Your task to perform on an android device: open app "Duolingo: language lessons" (install if not already installed) and enter user name: "omens@gmail.com" and password: "casks" Image 0: 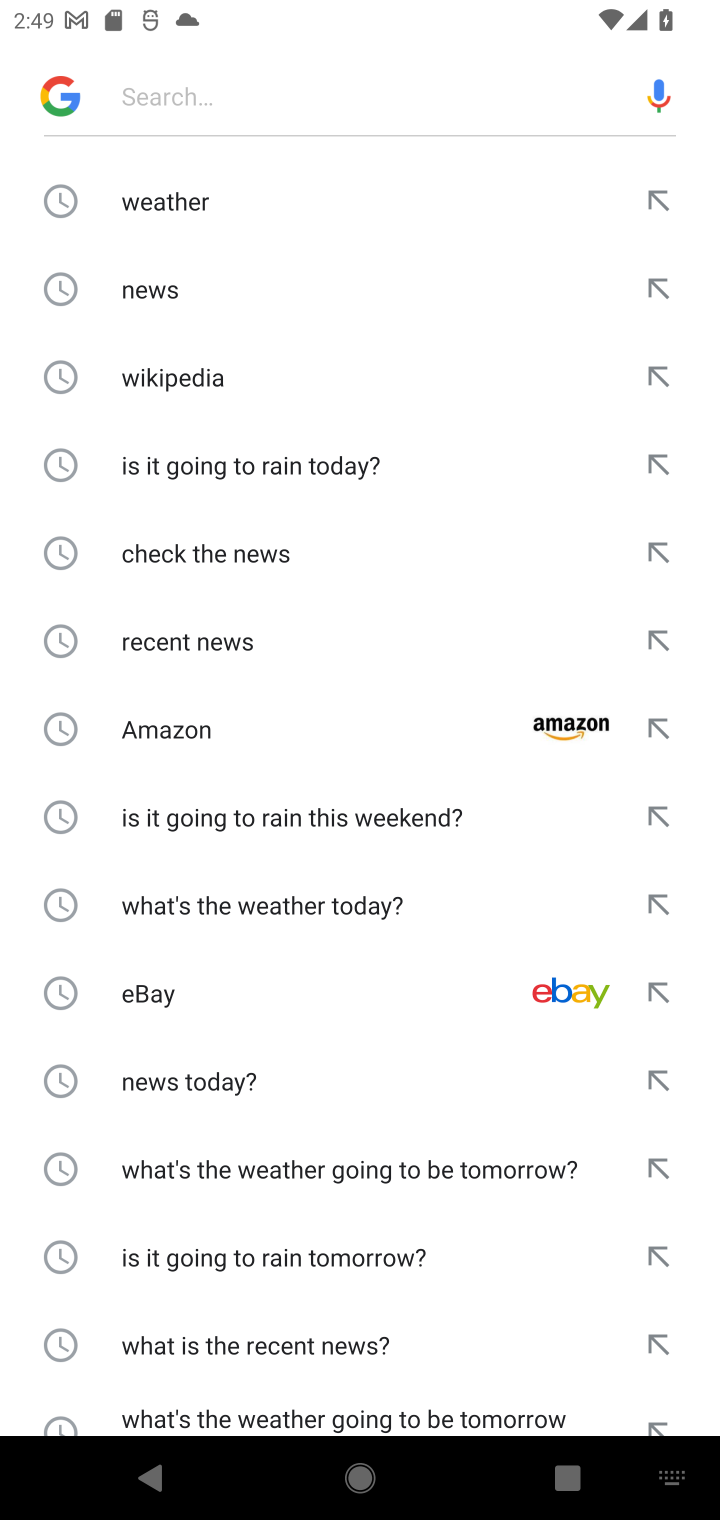
Step 0: click (296, 87)
Your task to perform on an android device: open app "Duolingo: language lessons" (install if not already installed) and enter user name: "omens@gmail.com" and password: "casks" Image 1: 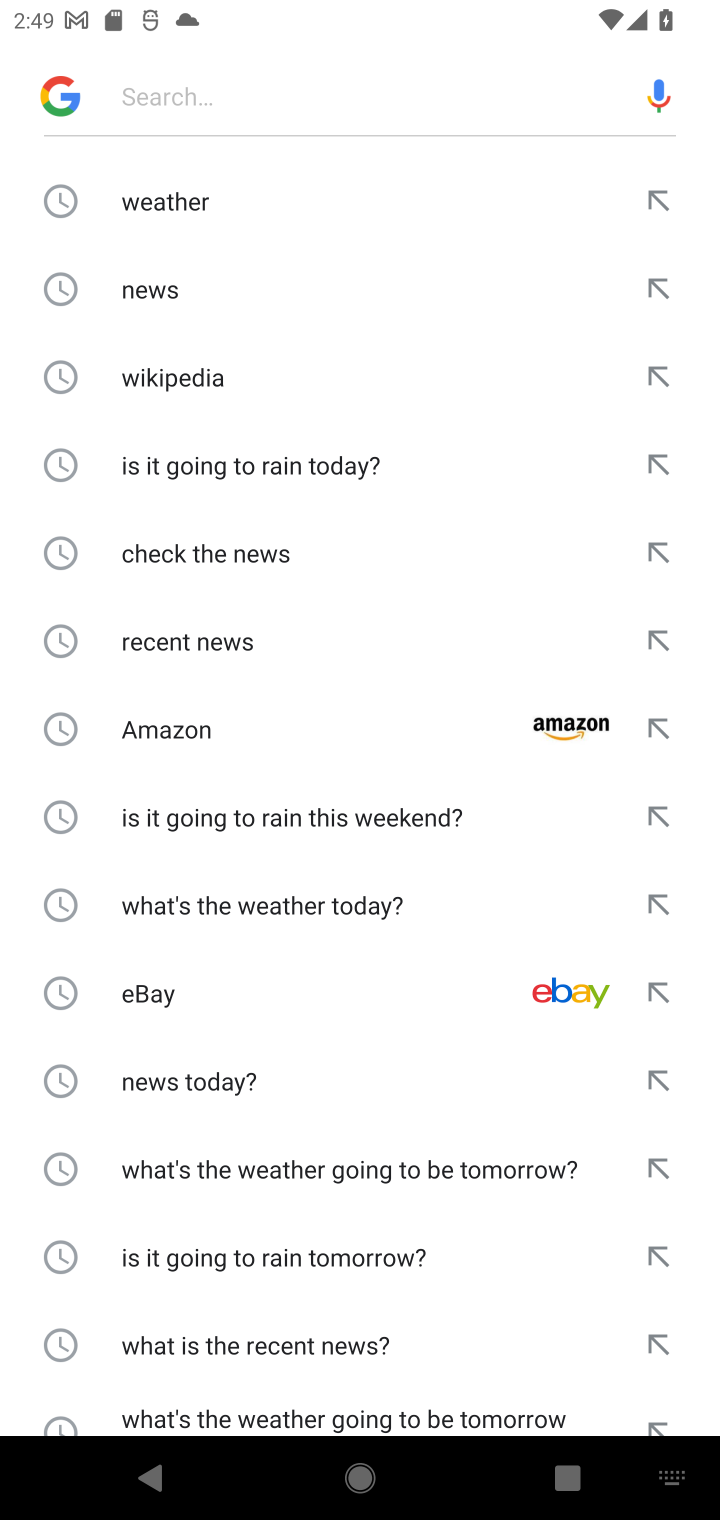
Step 1: type "Duolingo: language lessons "
Your task to perform on an android device: open app "Duolingo: language lessons" (install if not already installed) and enter user name: "omens@gmail.com" and password: "casks" Image 2: 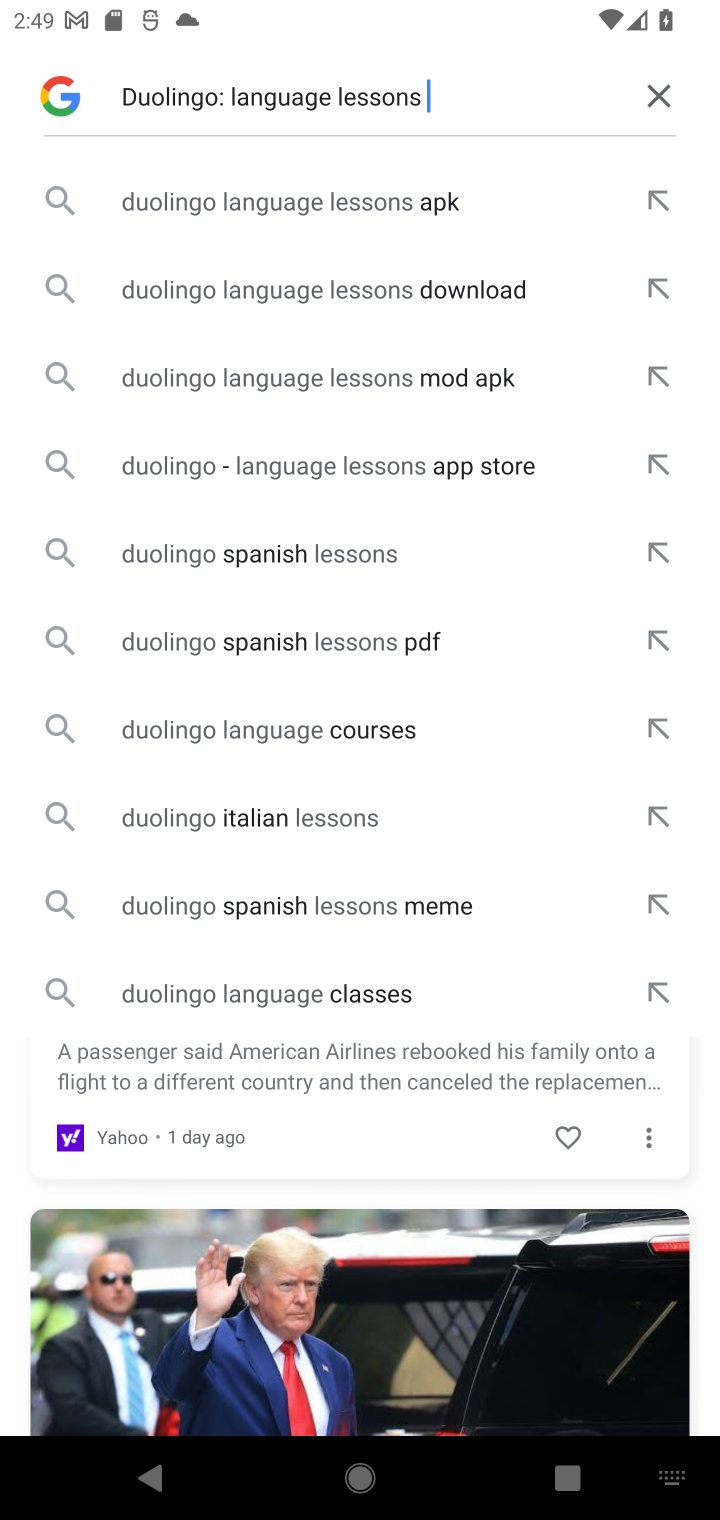
Step 2: click (208, 186)
Your task to perform on an android device: open app "Duolingo: language lessons" (install if not already installed) and enter user name: "omens@gmail.com" and password: "casks" Image 3: 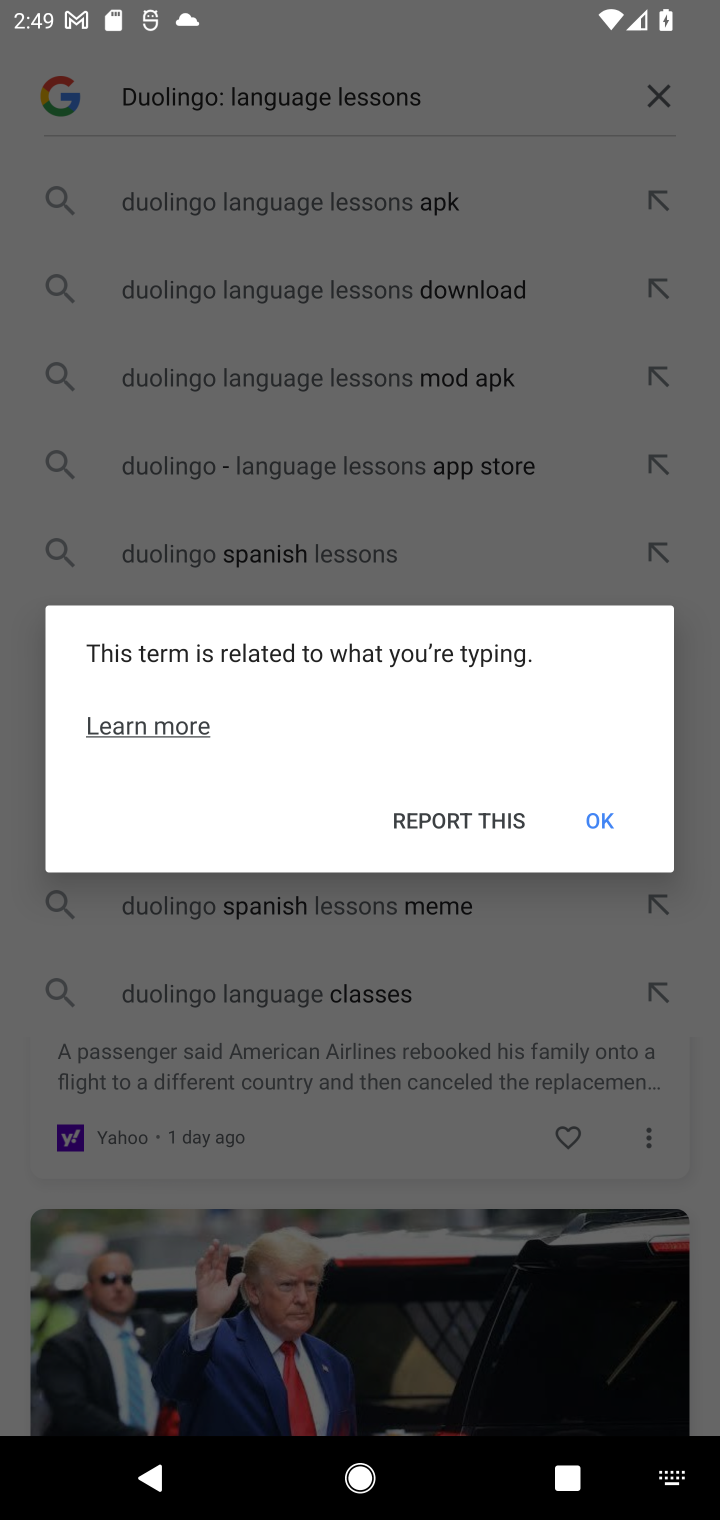
Step 3: click (581, 808)
Your task to perform on an android device: open app "Duolingo: language lessons" (install if not already installed) and enter user name: "omens@gmail.com" and password: "casks" Image 4: 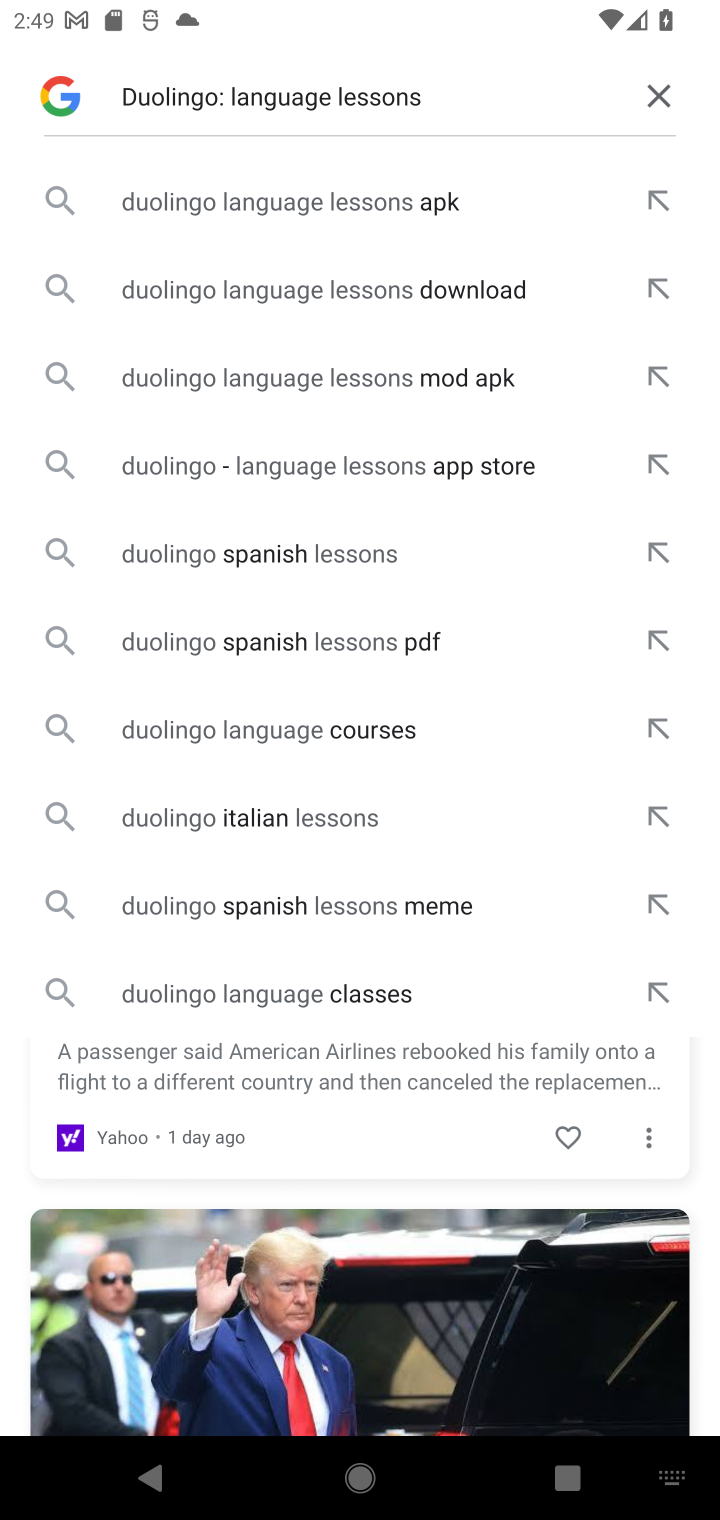
Step 4: click (366, 206)
Your task to perform on an android device: open app "Duolingo: language lessons" (install if not already installed) and enter user name: "omens@gmail.com" and password: "casks" Image 5: 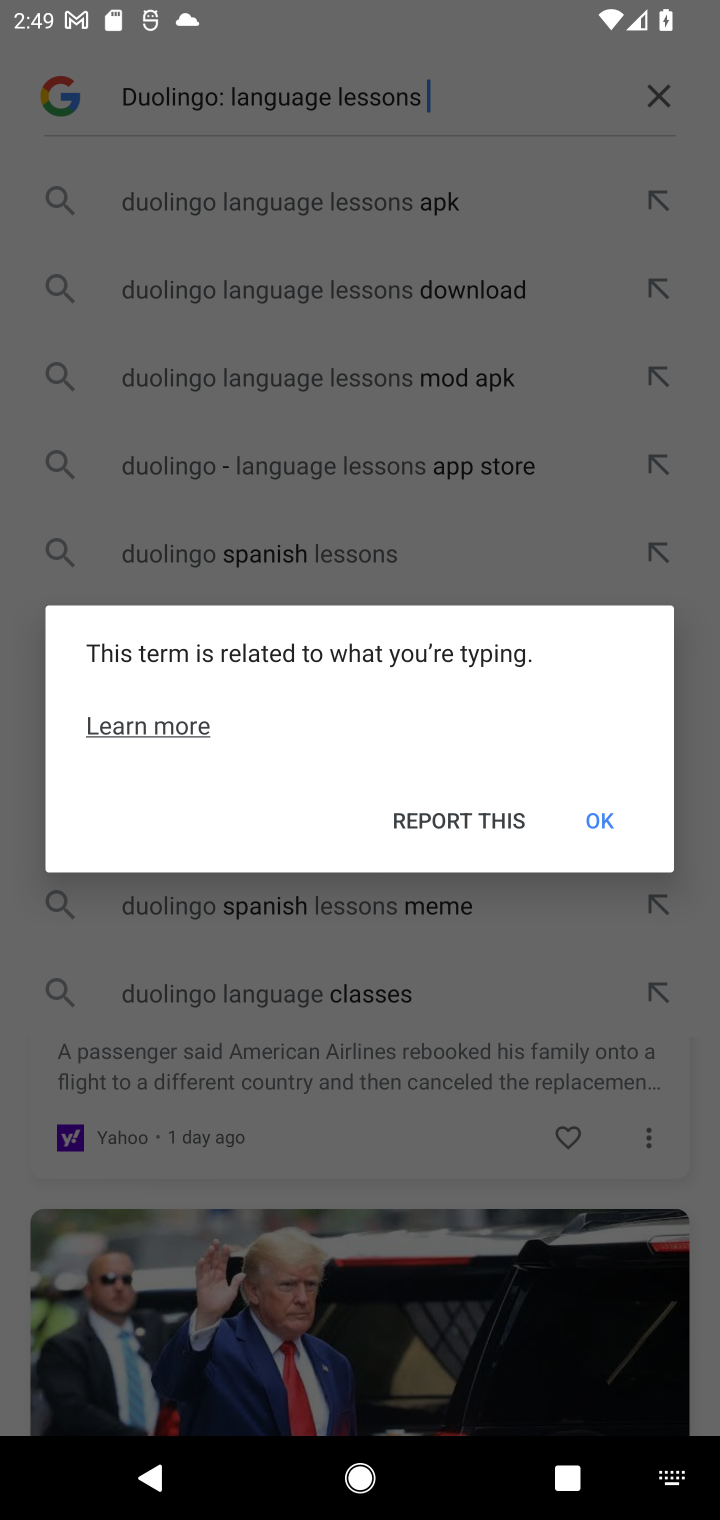
Step 5: click (613, 798)
Your task to perform on an android device: open app "Duolingo: language lessons" (install if not already installed) and enter user name: "omens@gmail.com" and password: "casks" Image 6: 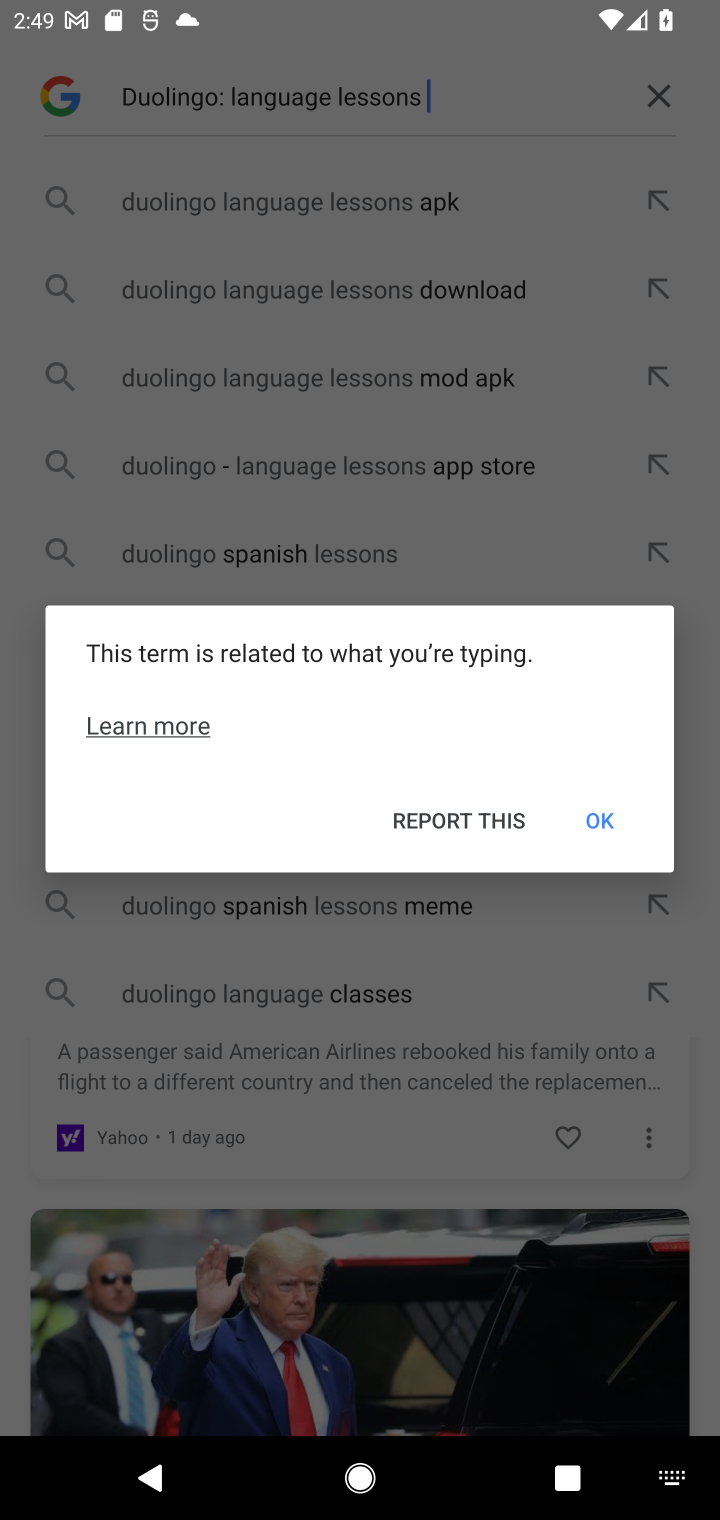
Step 6: click (377, 194)
Your task to perform on an android device: open app "Duolingo: language lessons" (install if not already installed) and enter user name: "omens@gmail.com" and password: "casks" Image 7: 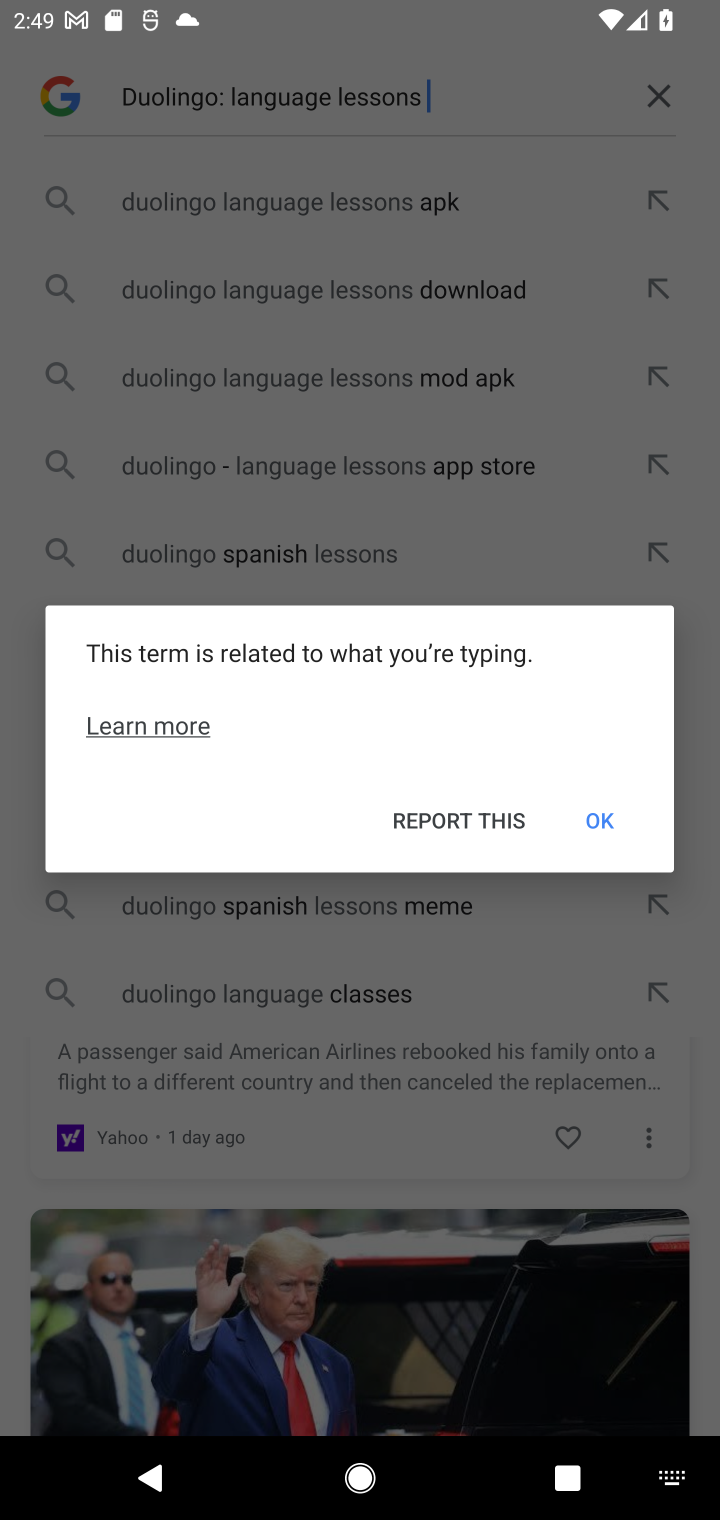
Step 7: task complete